Your task to perform on an android device: move a message to another label in the gmail app Image 0: 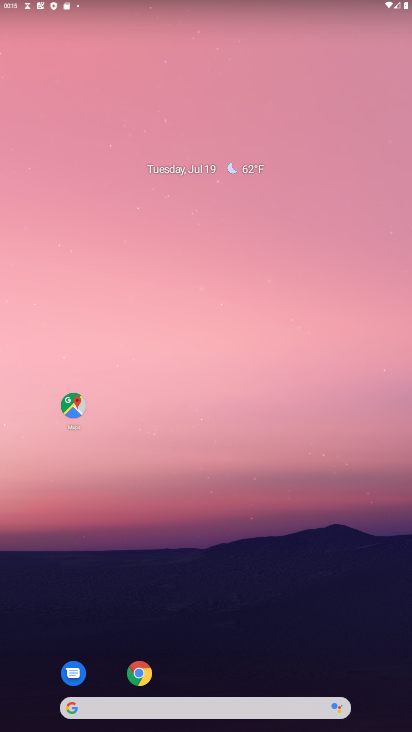
Step 0: drag from (161, 651) to (164, 292)
Your task to perform on an android device: move a message to another label in the gmail app Image 1: 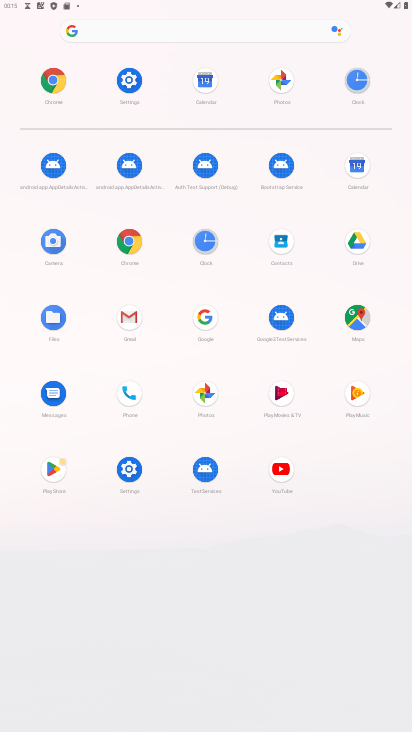
Step 1: click (123, 308)
Your task to perform on an android device: move a message to another label in the gmail app Image 2: 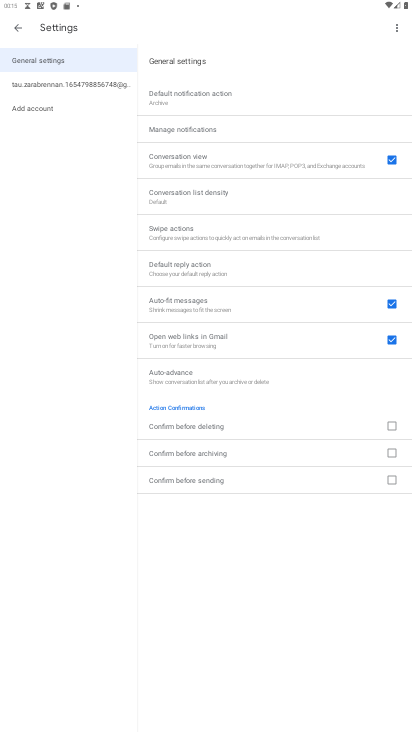
Step 2: click (16, 24)
Your task to perform on an android device: move a message to another label in the gmail app Image 3: 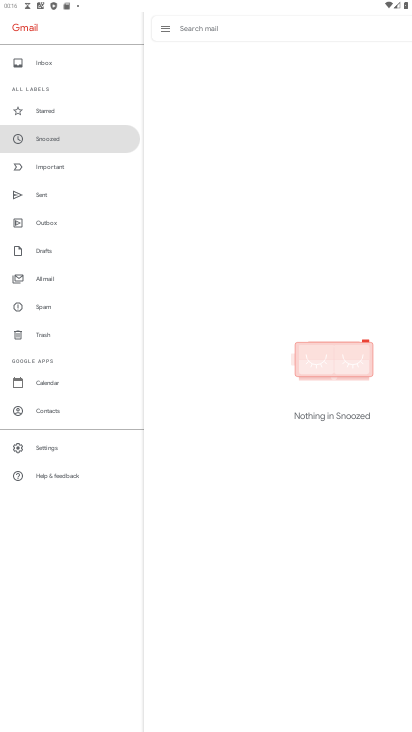
Step 3: click (65, 276)
Your task to perform on an android device: move a message to another label in the gmail app Image 4: 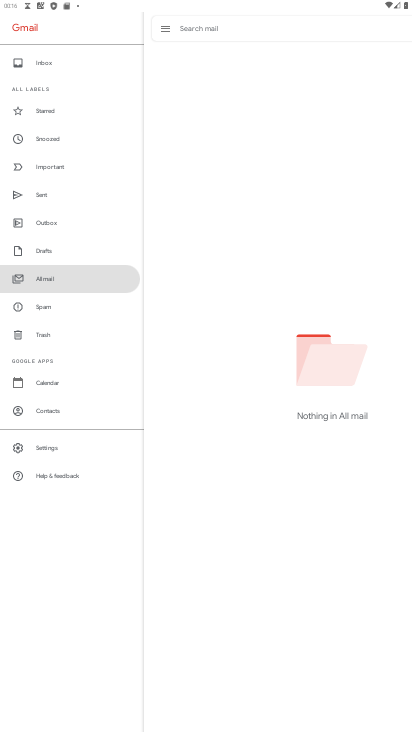
Step 4: task complete